Your task to perform on an android device: find photos in the google photos app Image 0: 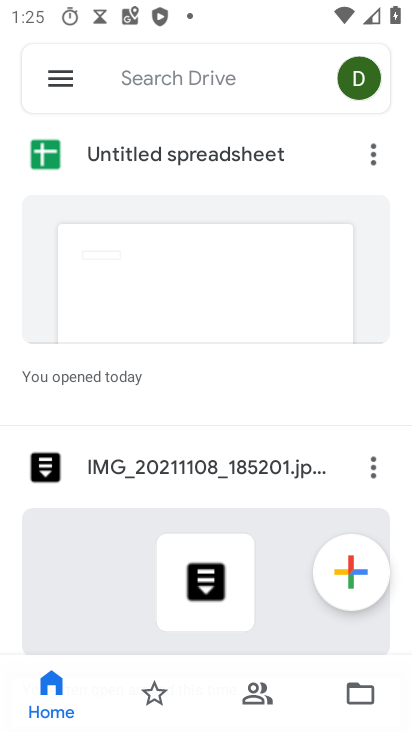
Step 0: press home button
Your task to perform on an android device: find photos in the google photos app Image 1: 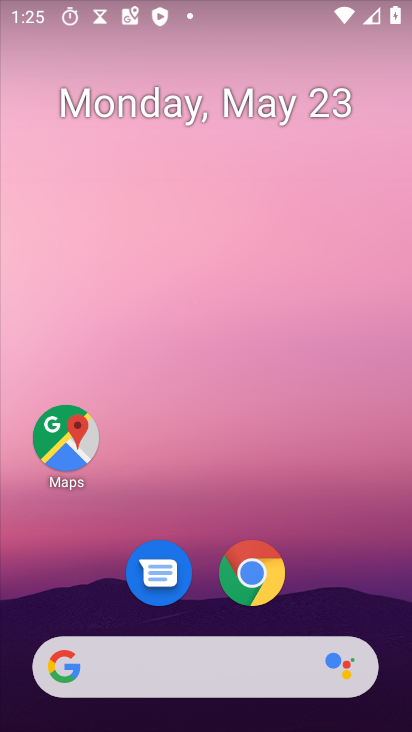
Step 1: drag from (165, 663) to (283, 254)
Your task to perform on an android device: find photos in the google photos app Image 2: 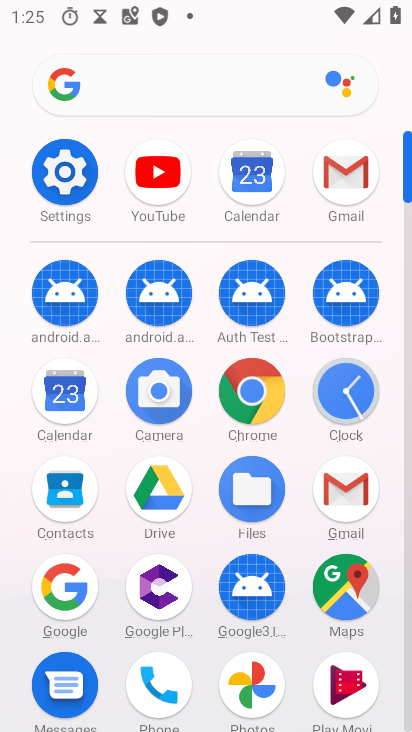
Step 2: click (247, 667)
Your task to perform on an android device: find photos in the google photos app Image 3: 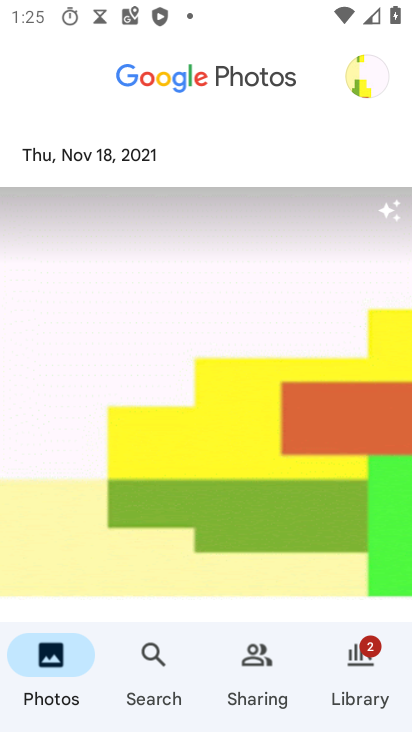
Step 3: task complete